Your task to perform on an android device: allow cookies in the chrome app Image 0: 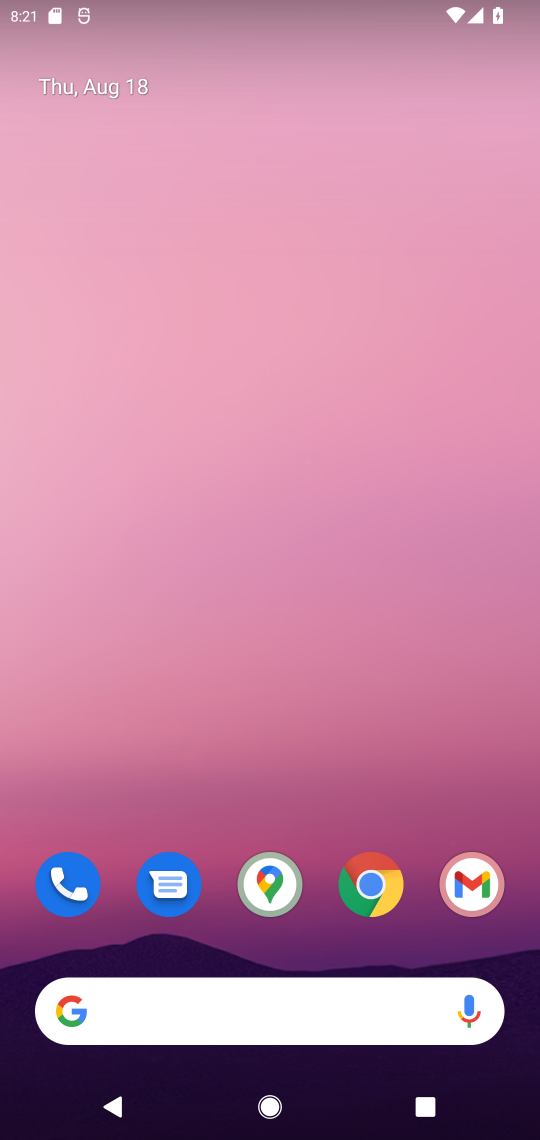
Step 0: click (361, 873)
Your task to perform on an android device: allow cookies in the chrome app Image 1: 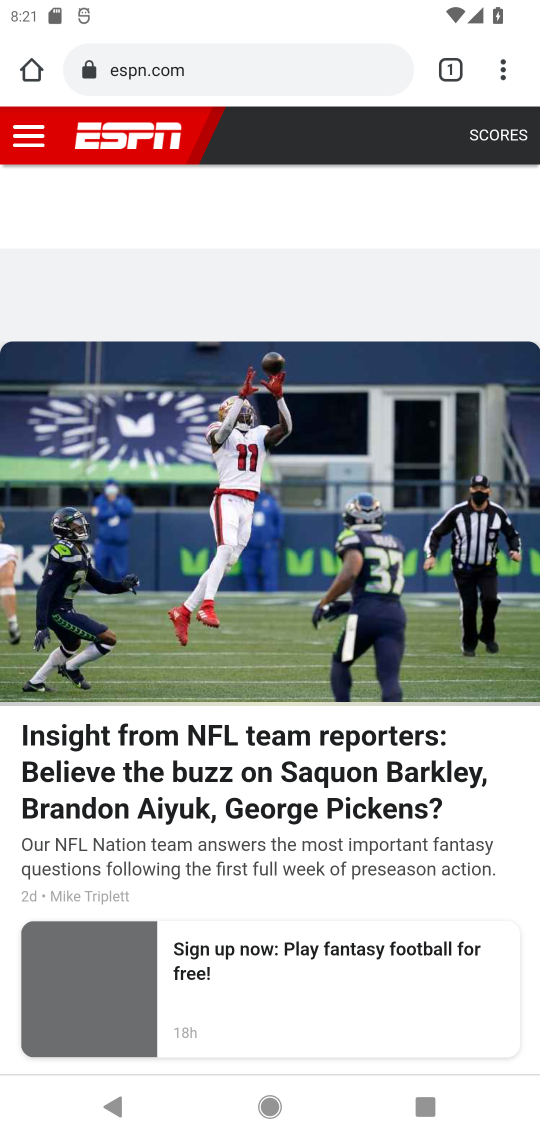
Step 1: click (519, 71)
Your task to perform on an android device: allow cookies in the chrome app Image 2: 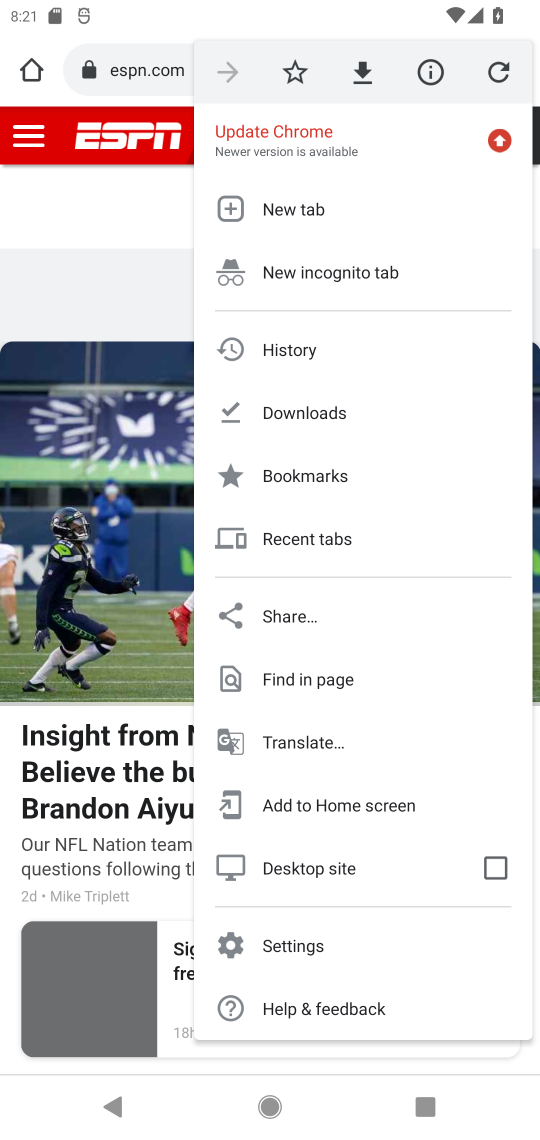
Step 2: click (317, 932)
Your task to perform on an android device: allow cookies in the chrome app Image 3: 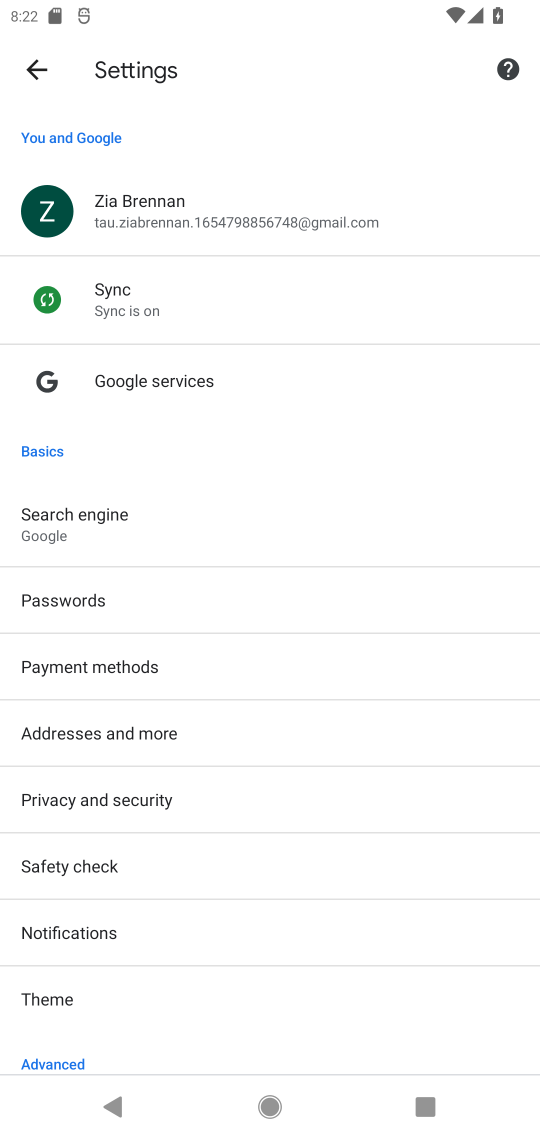
Step 3: drag from (317, 932) to (290, 213)
Your task to perform on an android device: allow cookies in the chrome app Image 4: 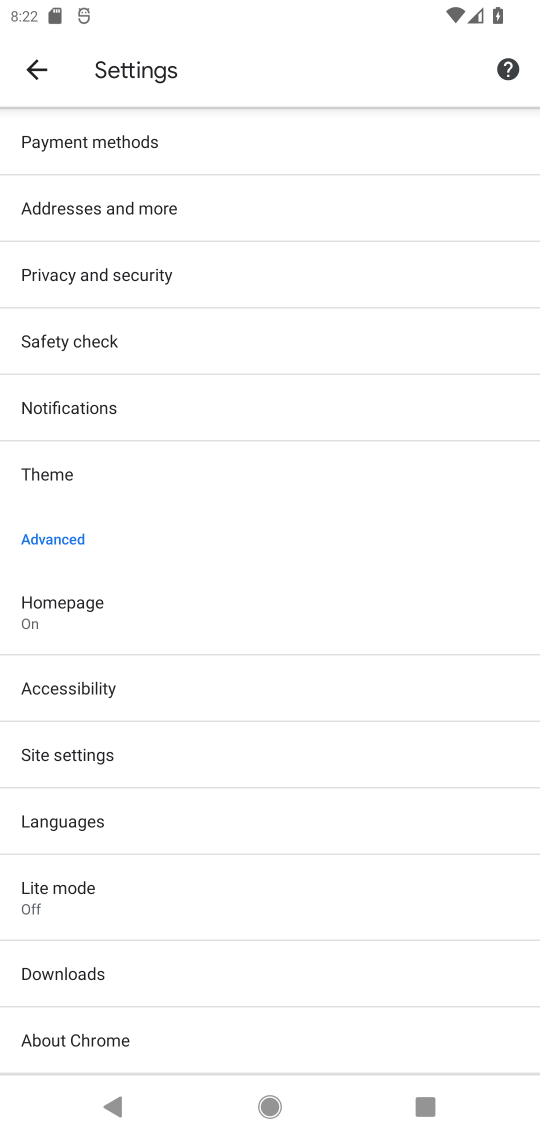
Step 4: click (159, 762)
Your task to perform on an android device: allow cookies in the chrome app Image 5: 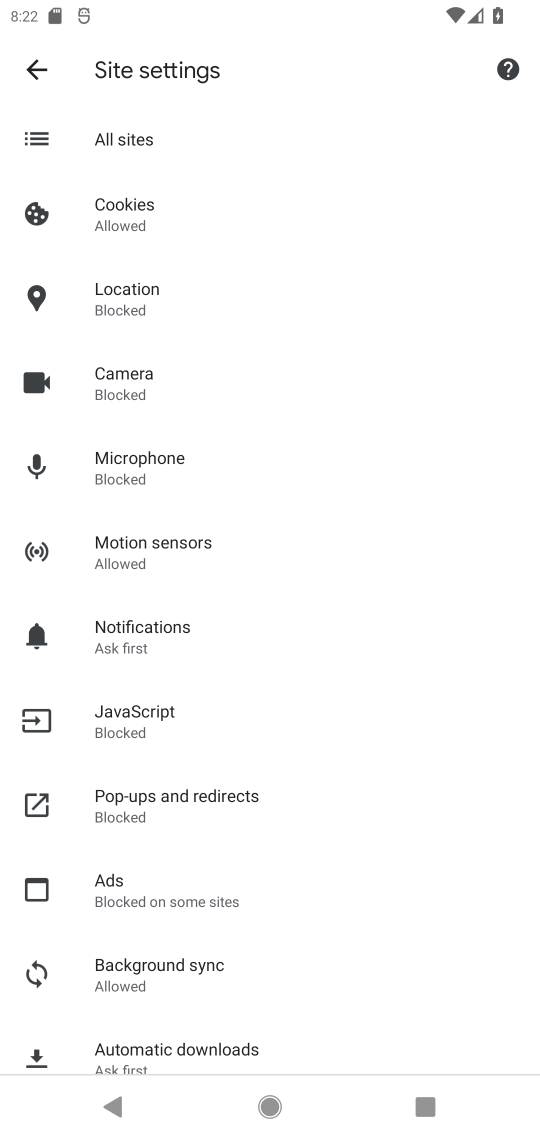
Step 5: click (159, 762)
Your task to perform on an android device: allow cookies in the chrome app Image 6: 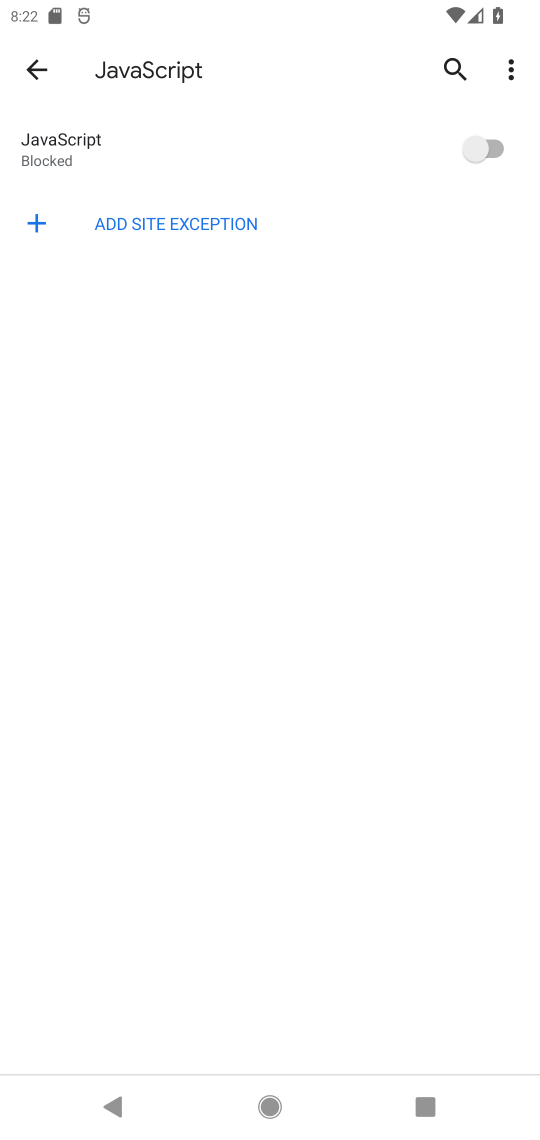
Step 6: click (45, 73)
Your task to perform on an android device: allow cookies in the chrome app Image 7: 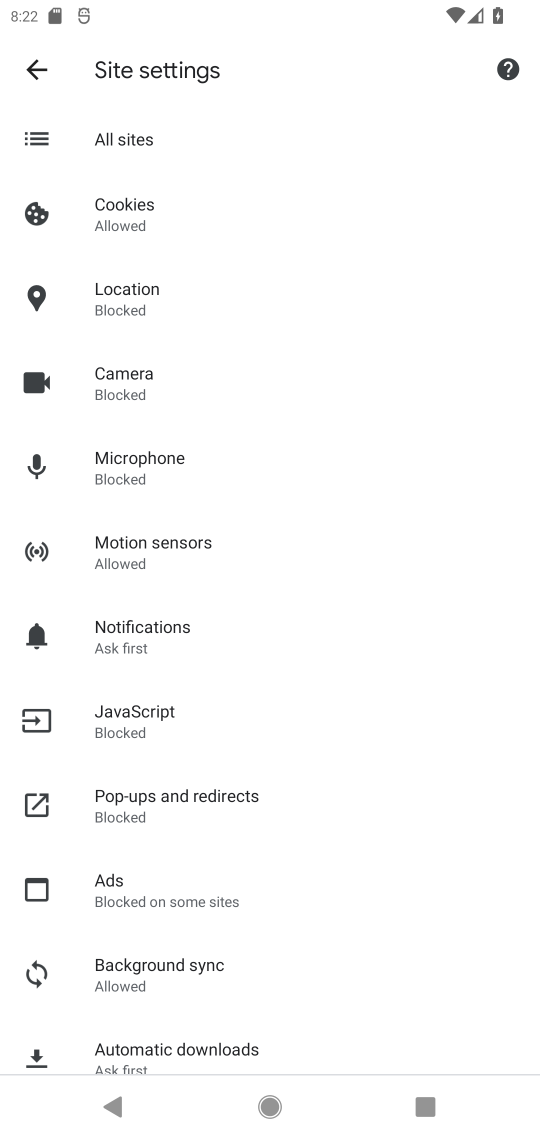
Step 7: click (214, 225)
Your task to perform on an android device: allow cookies in the chrome app Image 8: 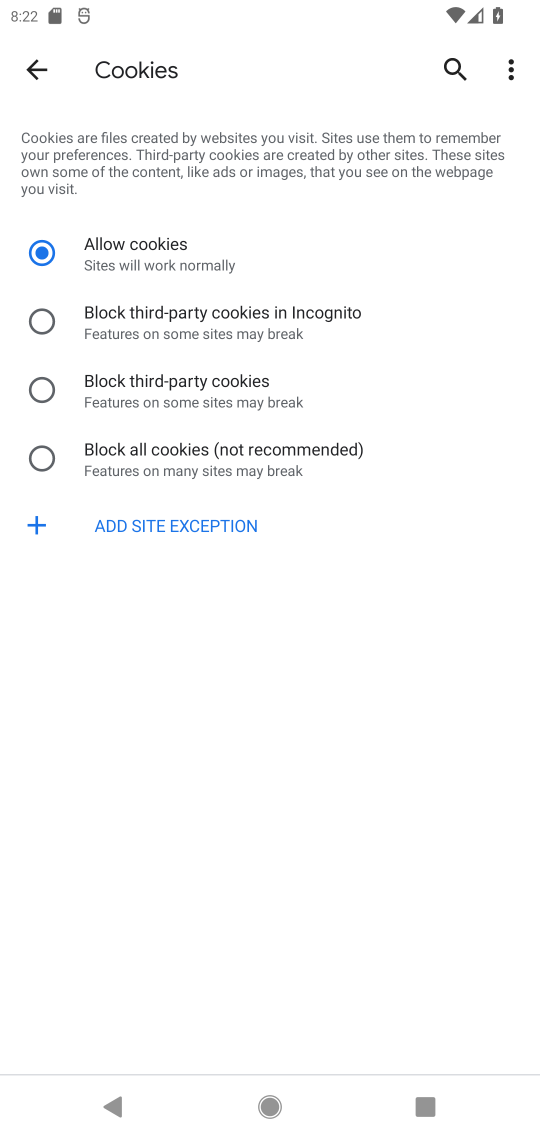
Step 8: task complete